Your task to perform on an android device: Open wifi settings Image 0: 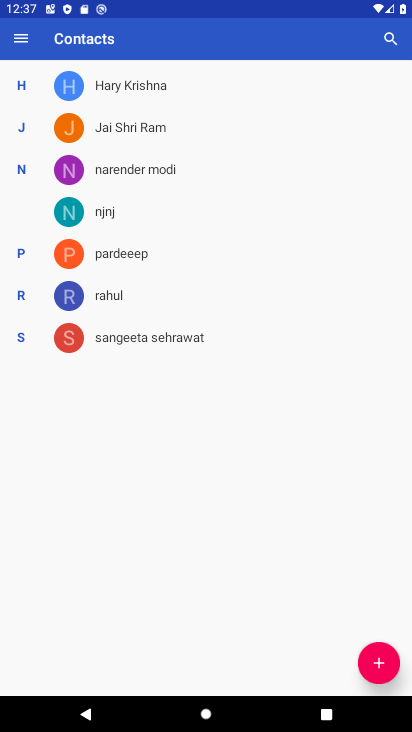
Step 0: press back button
Your task to perform on an android device: Open wifi settings Image 1: 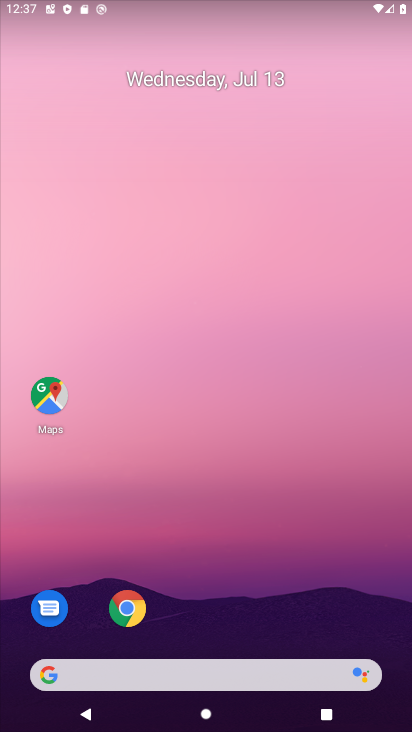
Step 1: drag from (53, 4) to (100, 499)
Your task to perform on an android device: Open wifi settings Image 2: 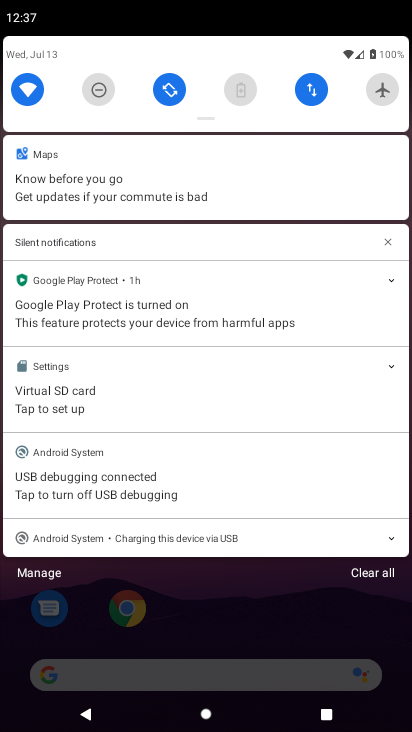
Step 2: click (22, 90)
Your task to perform on an android device: Open wifi settings Image 3: 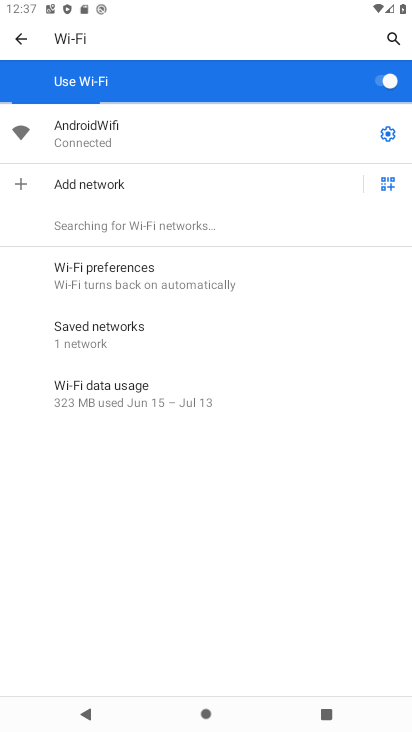
Step 3: task complete